Your task to perform on an android device: Open the phone app and click the voicemail tab. Image 0: 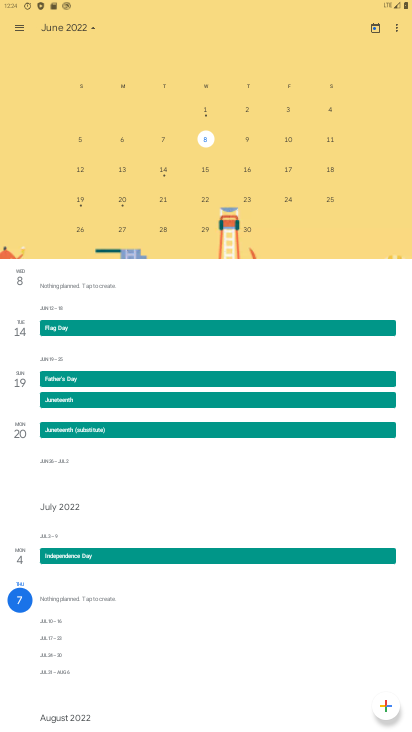
Step 0: drag from (187, 724) to (276, 101)
Your task to perform on an android device: Open the phone app and click the voicemail tab. Image 1: 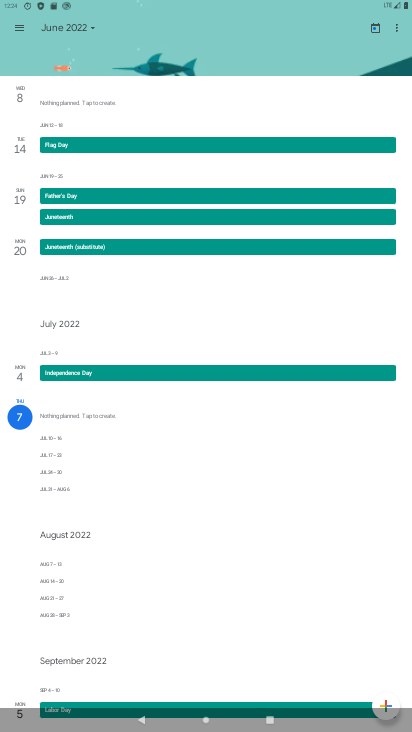
Step 1: click (203, 726)
Your task to perform on an android device: Open the phone app and click the voicemail tab. Image 2: 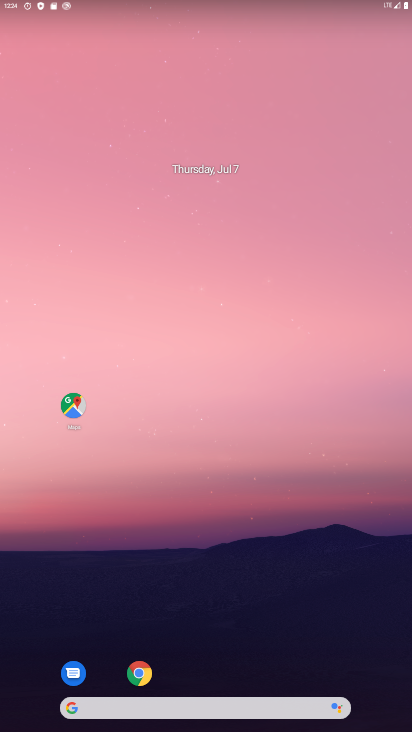
Step 2: drag from (230, 656) to (338, 124)
Your task to perform on an android device: Open the phone app and click the voicemail tab. Image 3: 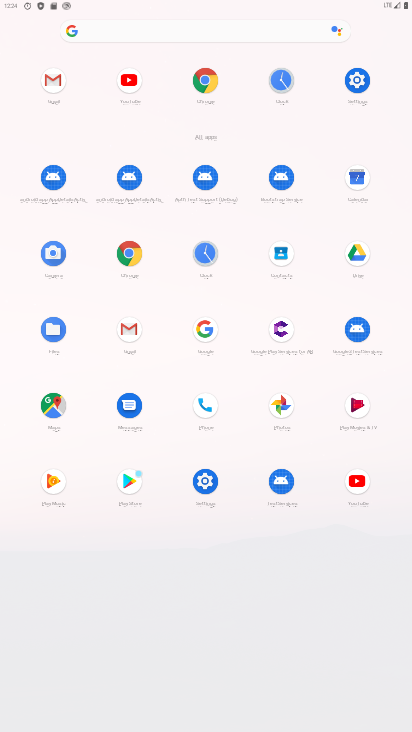
Step 3: click (361, 193)
Your task to perform on an android device: Open the phone app and click the voicemail tab. Image 4: 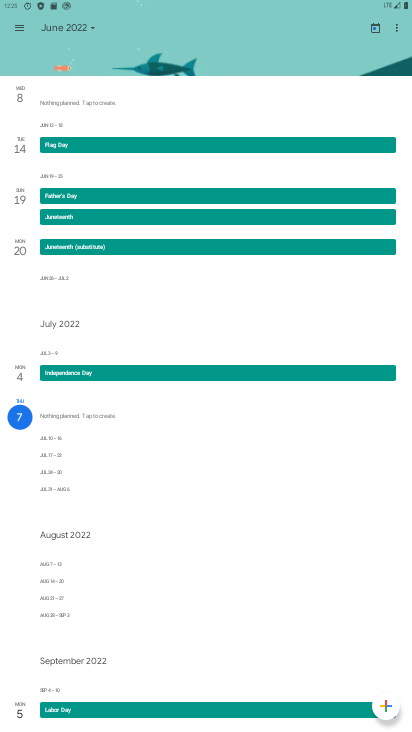
Step 4: drag from (227, 728) to (236, 90)
Your task to perform on an android device: Open the phone app and click the voicemail tab. Image 5: 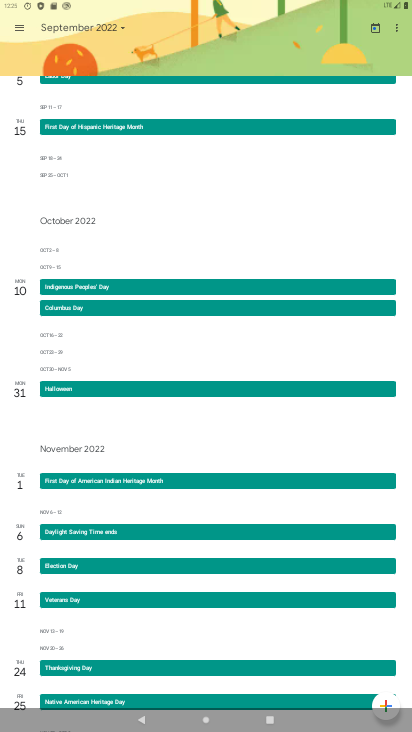
Step 5: click (209, 721)
Your task to perform on an android device: Open the phone app and click the voicemail tab. Image 6: 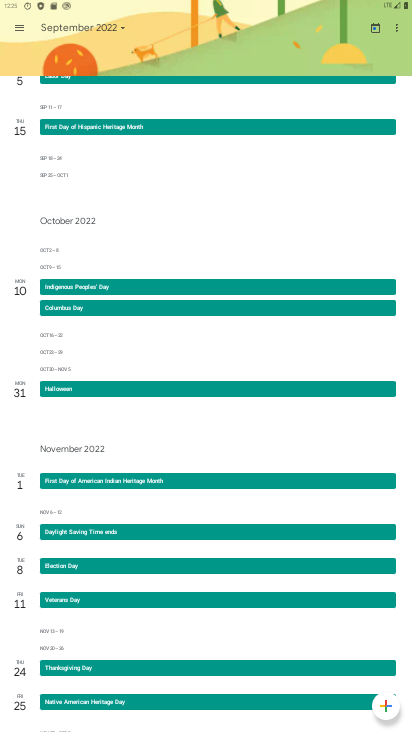
Step 6: drag from (207, 663) to (199, 319)
Your task to perform on an android device: Open the phone app and click the voicemail tab. Image 7: 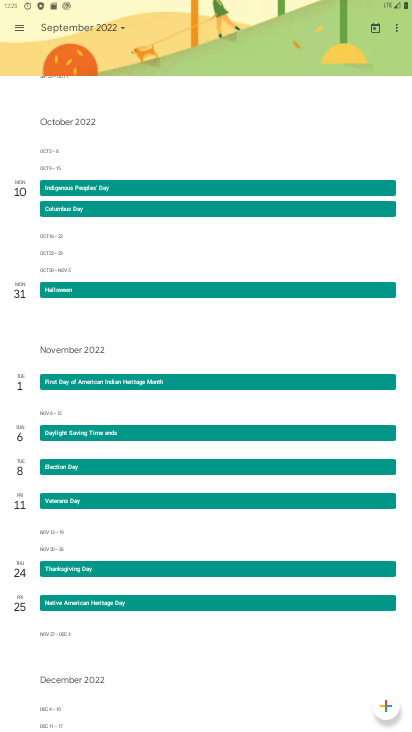
Step 7: drag from (202, 722) to (180, 358)
Your task to perform on an android device: Open the phone app and click the voicemail tab. Image 8: 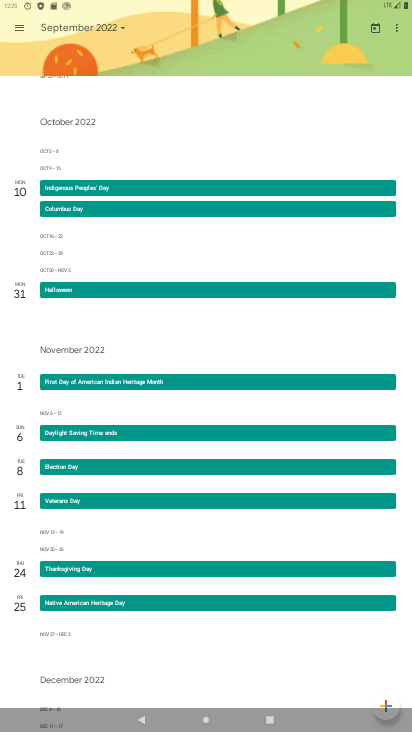
Step 8: click (210, 720)
Your task to perform on an android device: Open the phone app and click the voicemail tab. Image 9: 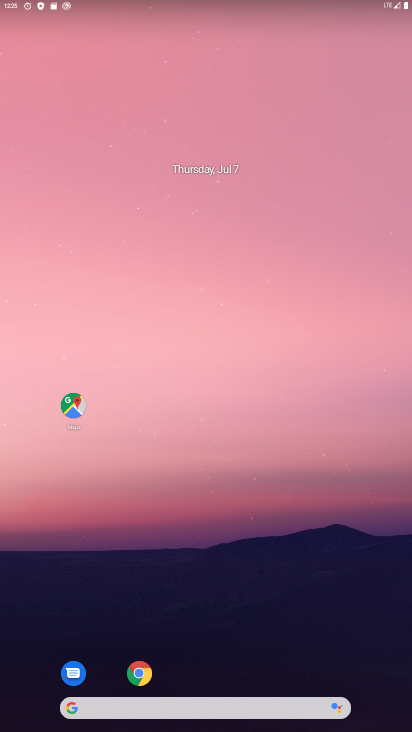
Step 9: drag from (224, 663) to (203, 0)
Your task to perform on an android device: Open the phone app and click the voicemail tab. Image 10: 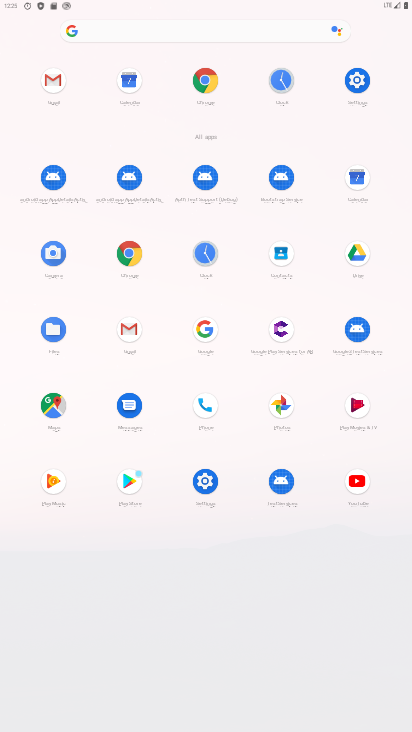
Step 10: click (213, 402)
Your task to perform on an android device: Open the phone app and click the voicemail tab. Image 11: 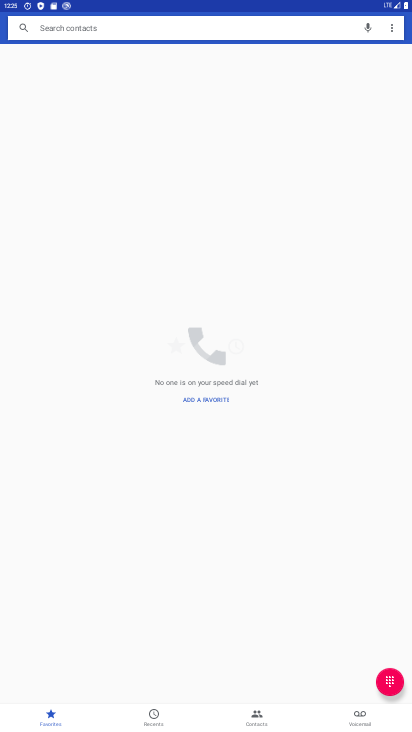
Step 11: click (396, 22)
Your task to perform on an android device: Open the phone app and click the voicemail tab. Image 12: 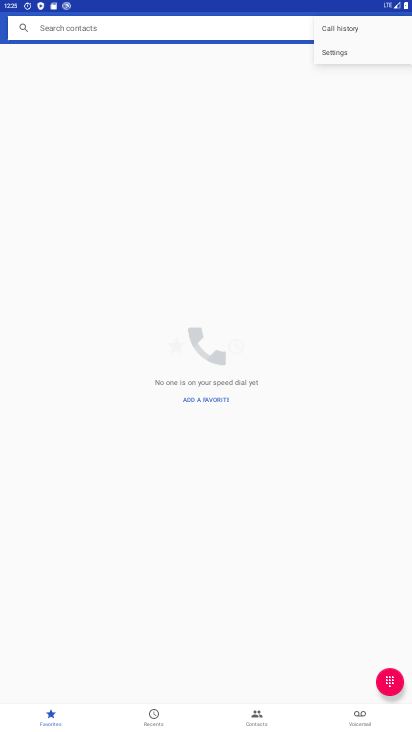
Step 12: click (370, 53)
Your task to perform on an android device: Open the phone app and click the voicemail tab. Image 13: 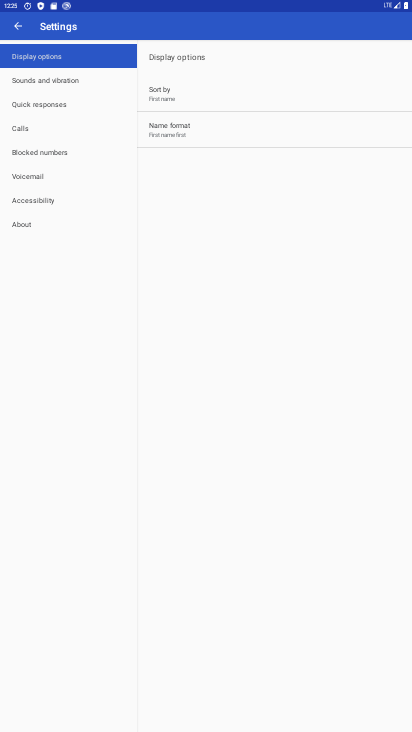
Step 13: click (53, 178)
Your task to perform on an android device: Open the phone app and click the voicemail tab. Image 14: 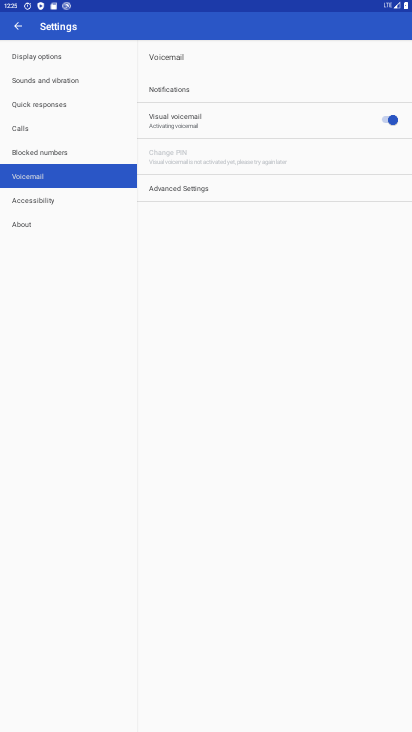
Step 14: task complete